Your task to perform on an android device: turn on javascript in the chrome app Image 0: 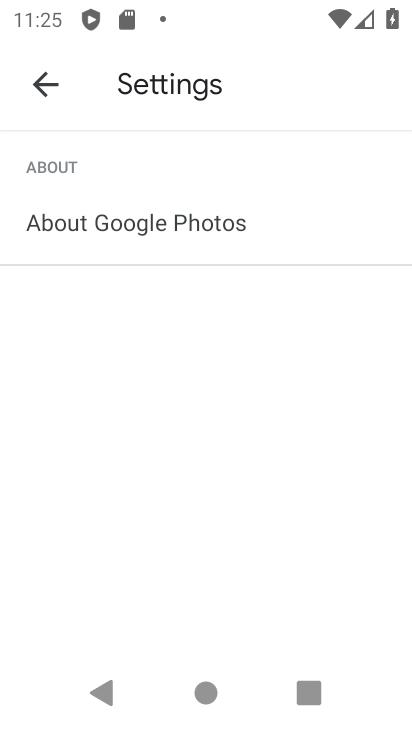
Step 0: press back button
Your task to perform on an android device: turn on javascript in the chrome app Image 1: 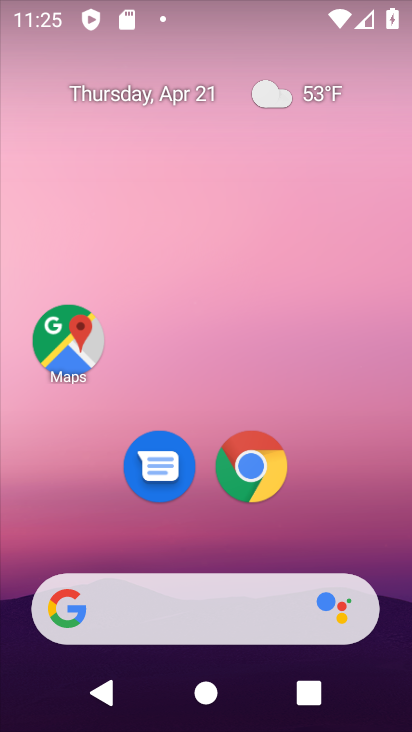
Step 1: drag from (358, 482) to (252, 0)
Your task to perform on an android device: turn on javascript in the chrome app Image 2: 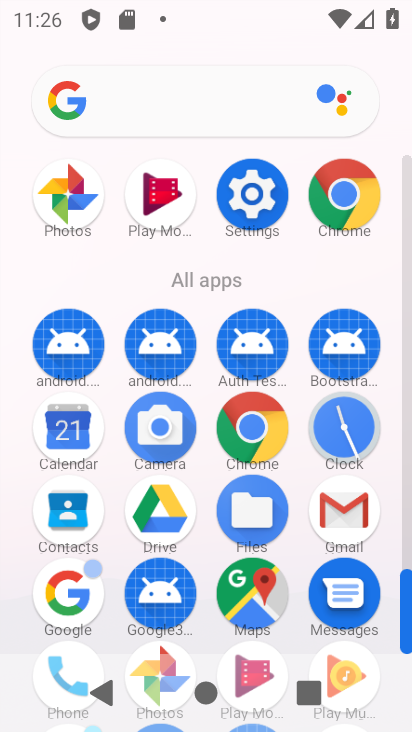
Step 2: click (347, 191)
Your task to perform on an android device: turn on javascript in the chrome app Image 3: 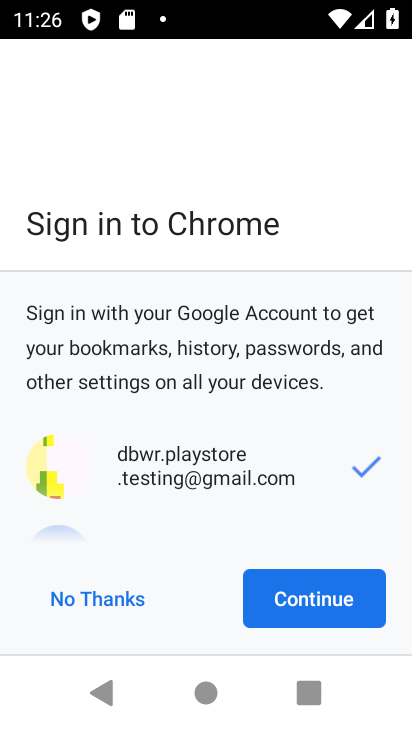
Step 3: click (95, 597)
Your task to perform on an android device: turn on javascript in the chrome app Image 4: 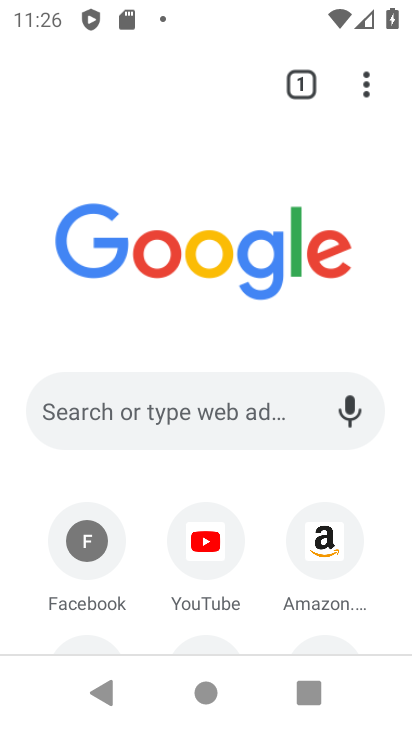
Step 4: drag from (364, 70) to (158, 514)
Your task to perform on an android device: turn on javascript in the chrome app Image 5: 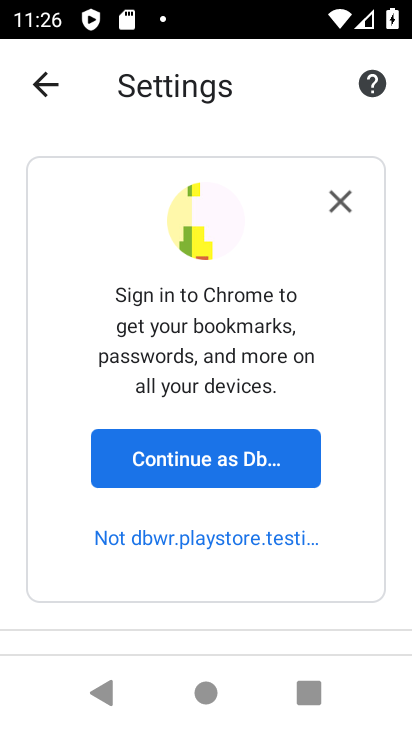
Step 5: click (227, 459)
Your task to perform on an android device: turn on javascript in the chrome app Image 6: 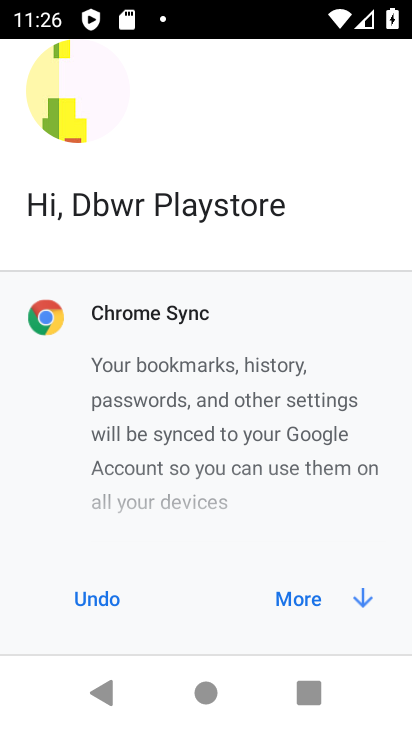
Step 6: click (283, 606)
Your task to perform on an android device: turn on javascript in the chrome app Image 7: 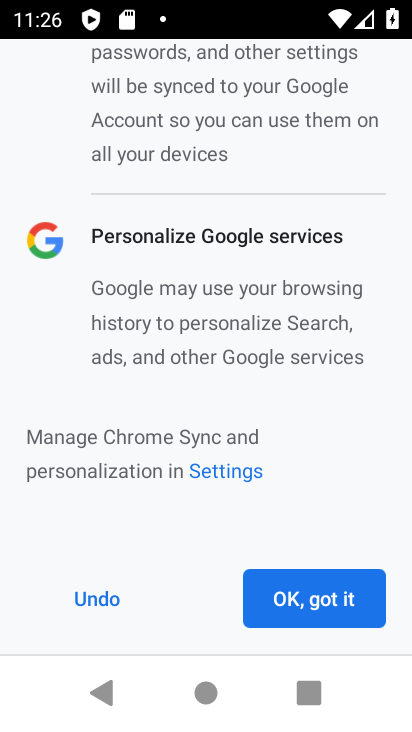
Step 7: click (283, 606)
Your task to perform on an android device: turn on javascript in the chrome app Image 8: 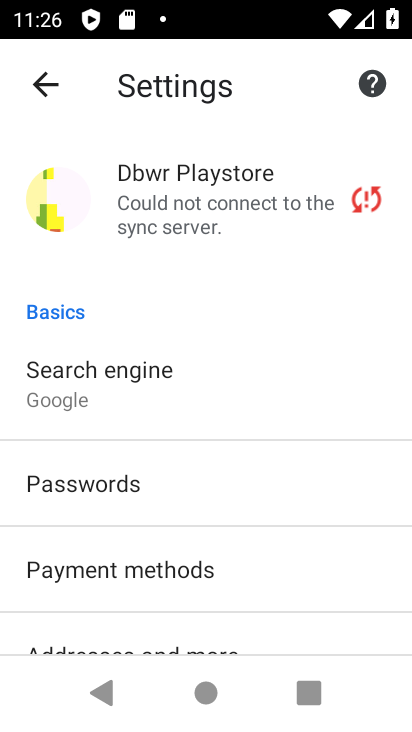
Step 8: drag from (244, 495) to (246, 121)
Your task to perform on an android device: turn on javascript in the chrome app Image 9: 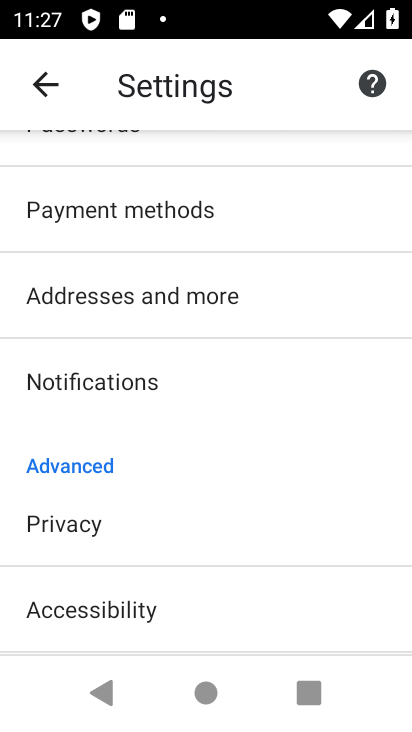
Step 9: drag from (249, 553) to (262, 129)
Your task to perform on an android device: turn on javascript in the chrome app Image 10: 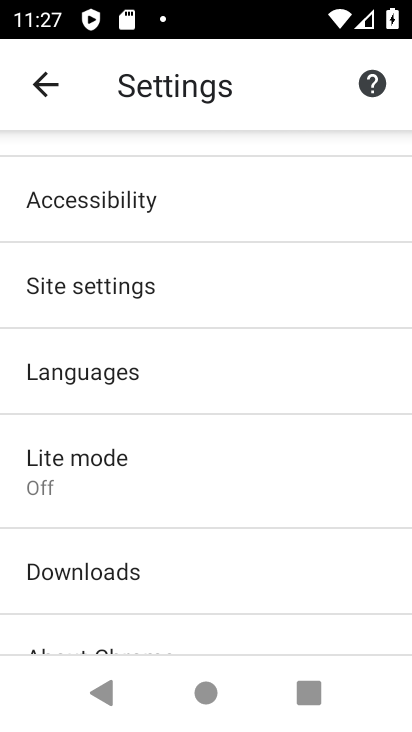
Step 10: click (146, 281)
Your task to perform on an android device: turn on javascript in the chrome app Image 11: 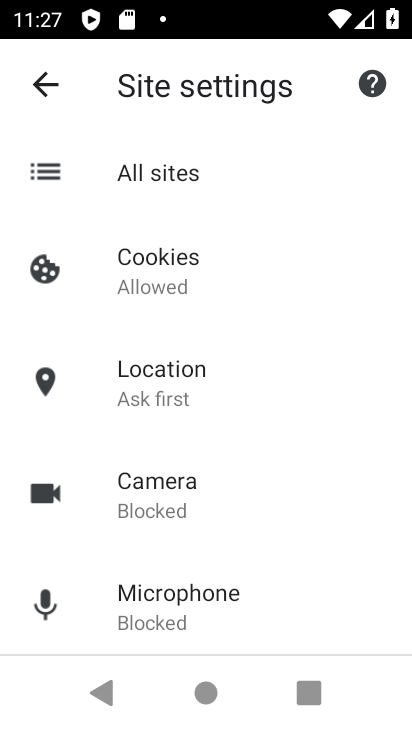
Step 11: drag from (216, 551) to (233, 245)
Your task to perform on an android device: turn on javascript in the chrome app Image 12: 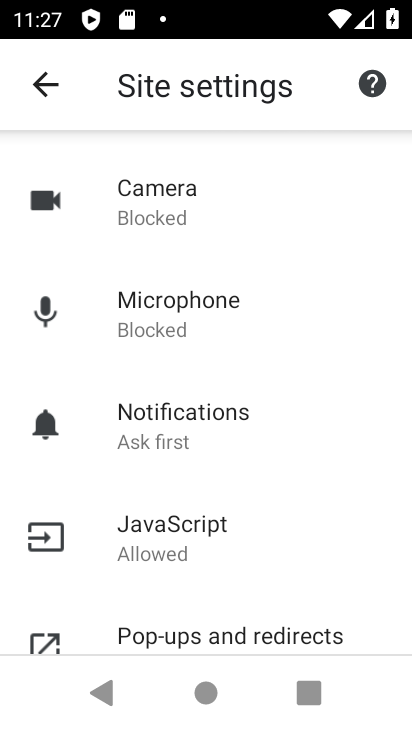
Step 12: click (203, 537)
Your task to perform on an android device: turn on javascript in the chrome app Image 13: 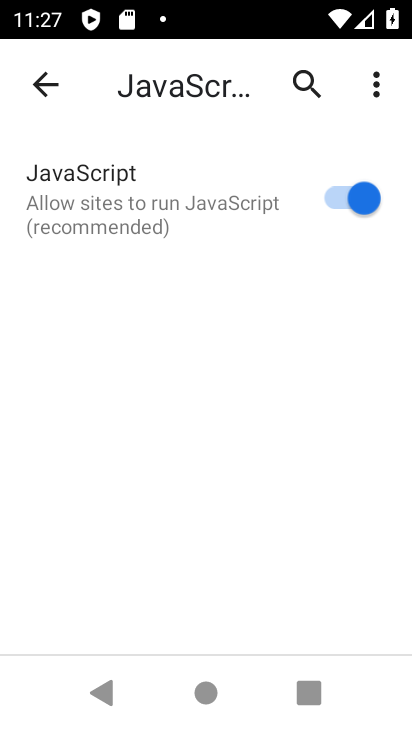
Step 13: task complete